Your task to perform on an android device: Is it going to rain tomorrow? Image 0: 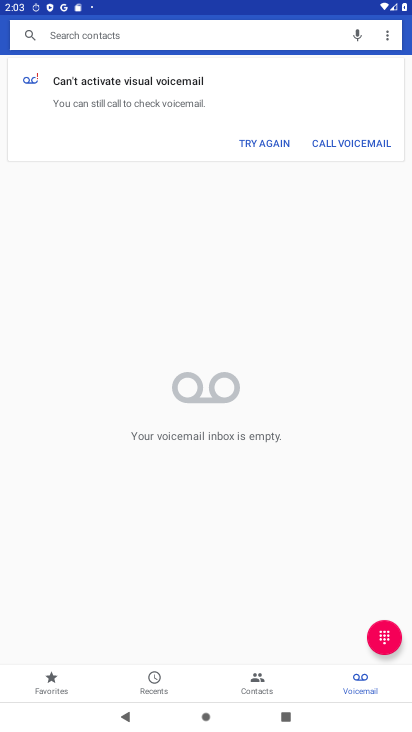
Step 0: press home button
Your task to perform on an android device: Is it going to rain tomorrow? Image 1: 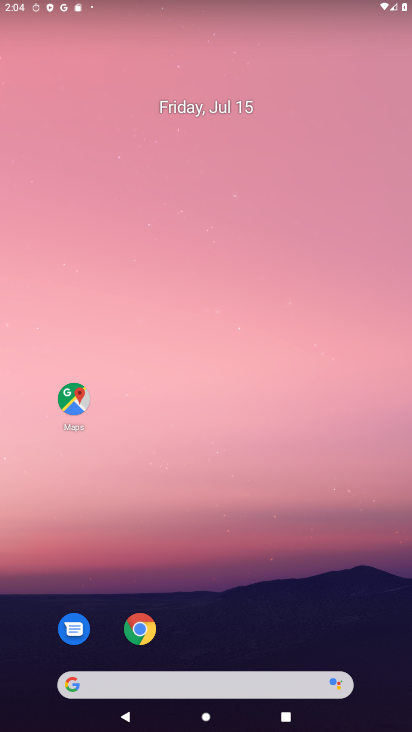
Step 1: click (133, 674)
Your task to perform on an android device: Is it going to rain tomorrow? Image 2: 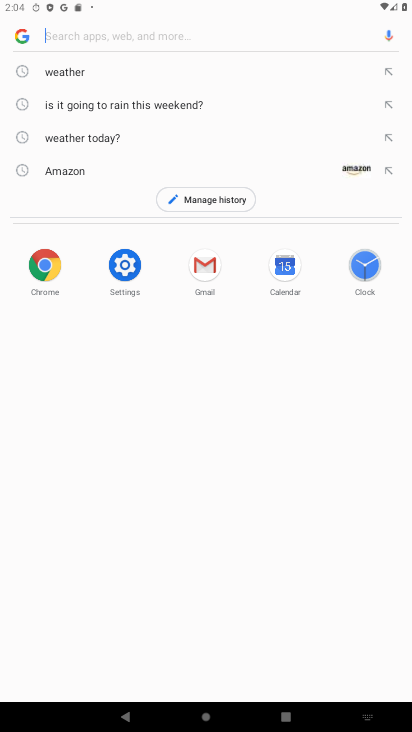
Step 2: press home button
Your task to perform on an android device: Is it going to rain tomorrow? Image 3: 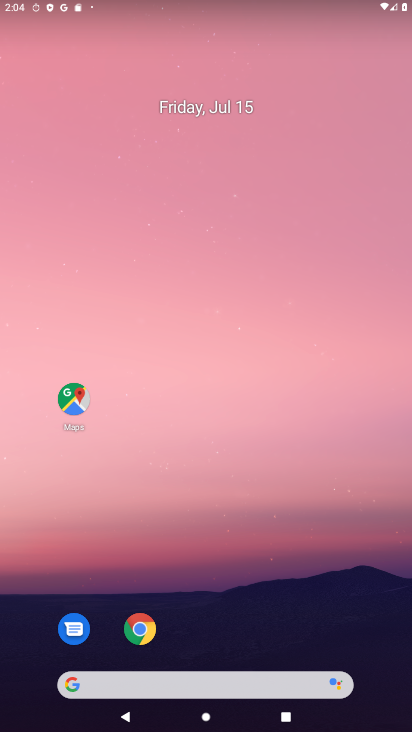
Step 3: click (118, 693)
Your task to perform on an android device: Is it going to rain tomorrow? Image 4: 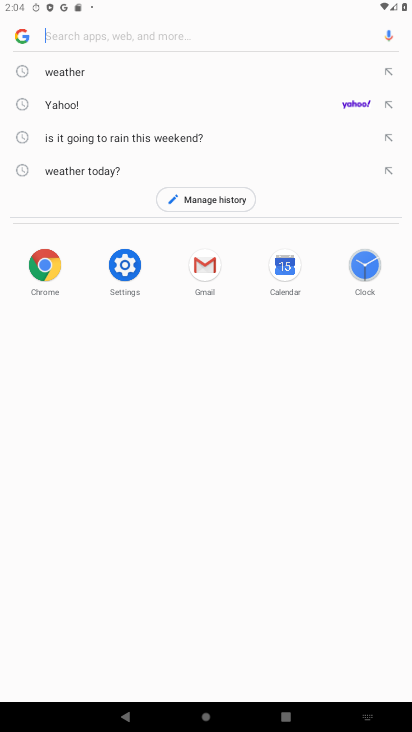
Step 4: click (65, 68)
Your task to perform on an android device: Is it going to rain tomorrow? Image 5: 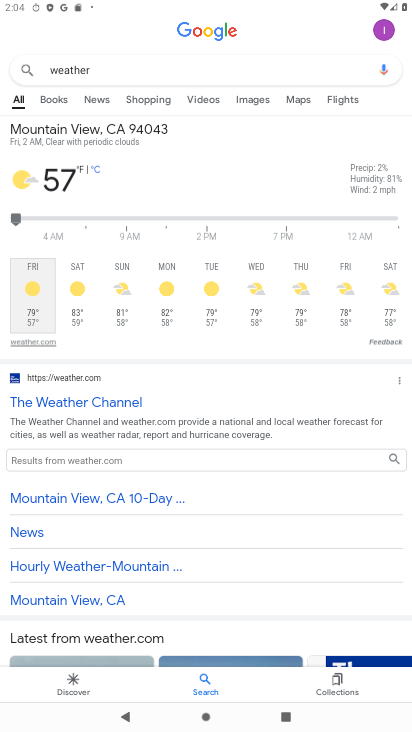
Step 5: click (44, 334)
Your task to perform on an android device: Is it going to rain tomorrow? Image 6: 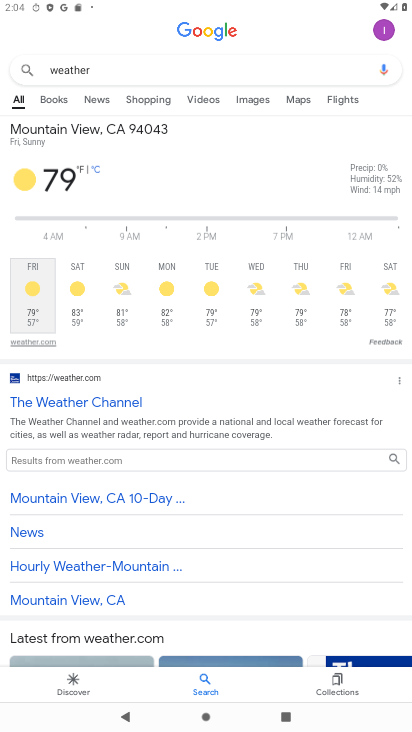
Step 6: click (36, 349)
Your task to perform on an android device: Is it going to rain tomorrow? Image 7: 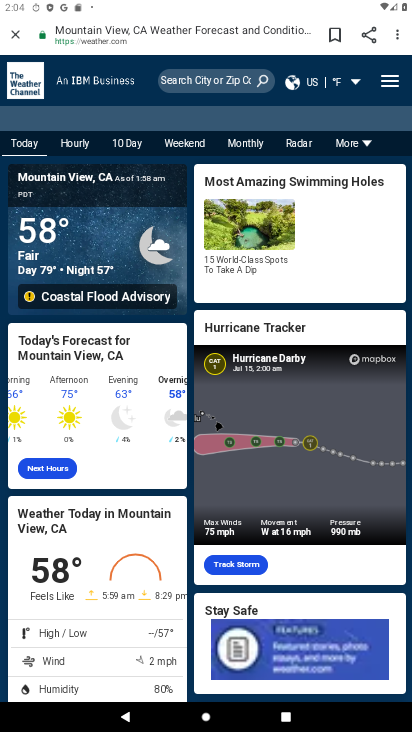
Step 7: click (113, 145)
Your task to perform on an android device: Is it going to rain tomorrow? Image 8: 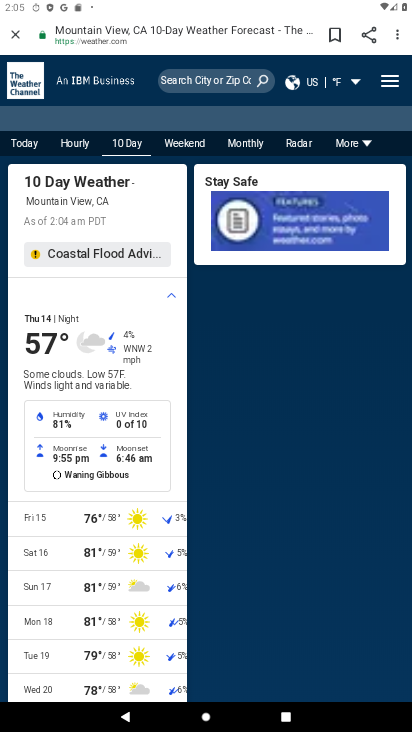
Step 8: task complete